Your task to perform on an android device: Open Chrome and go to the settings page Image 0: 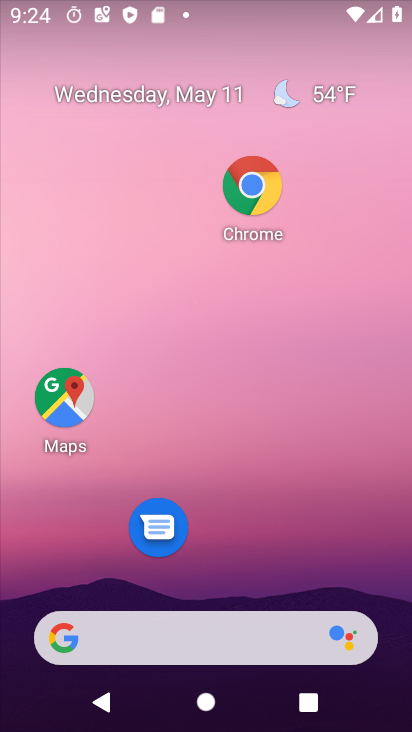
Step 0: click (254, 189)
Your task to perform on an android device: Open Chrome and go to the settings page Image 1: 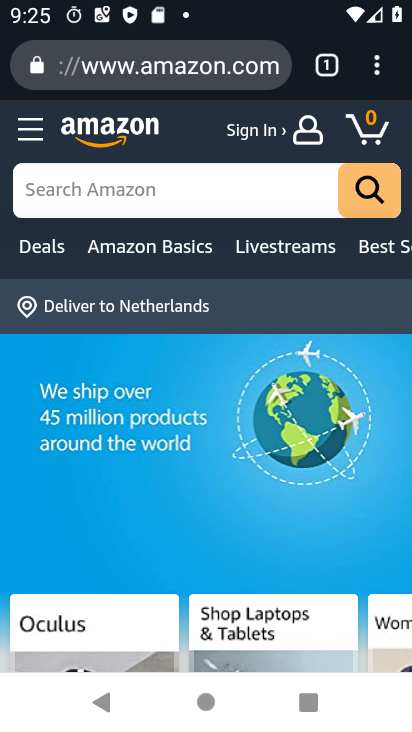
Step 1: click (373, 64)
Your task to perform on an android device: Open Chrome and go to the settings page Image 2: 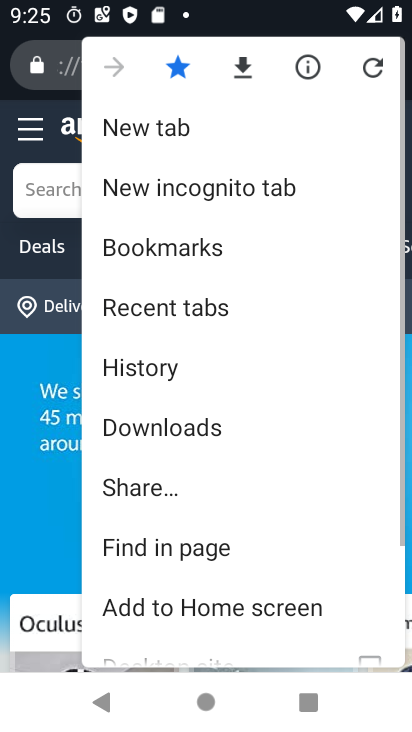
Step 2: drag from (214, 558) to (203, 102)
Your task to perform on an android device: Open Chrome and go to the settings page Image 3: 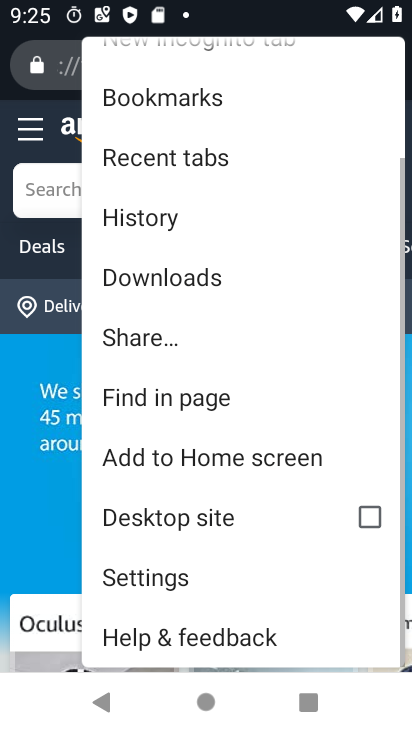
Step 3: click (192, 574)
Your task to perform on an android device: Open Chrome and go to the settings page Image 4: 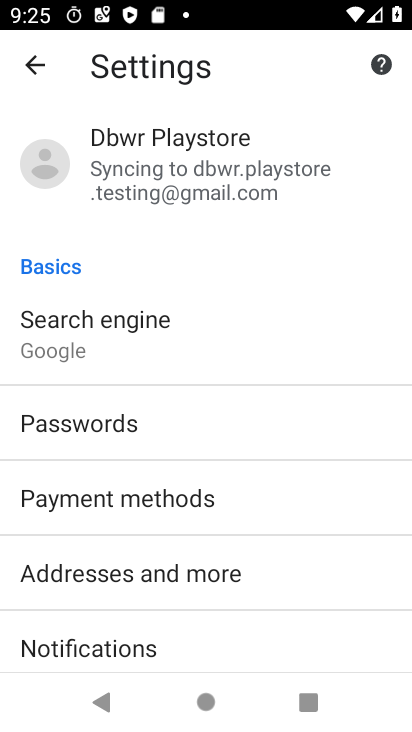
Step 4: task complete